Your task to perform on an android device: turn on the 24-hour format for clock Image 0: 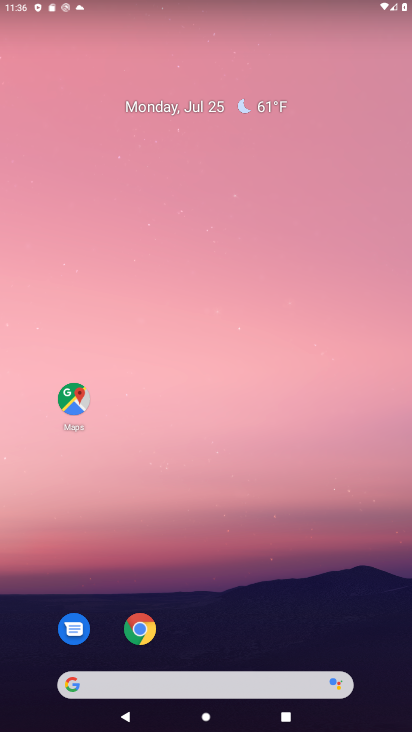
Step 0: drag from (171, 667) to (182, 109)
Your task to perform on an android device: turn on the 24-hour format for clock Image 1: 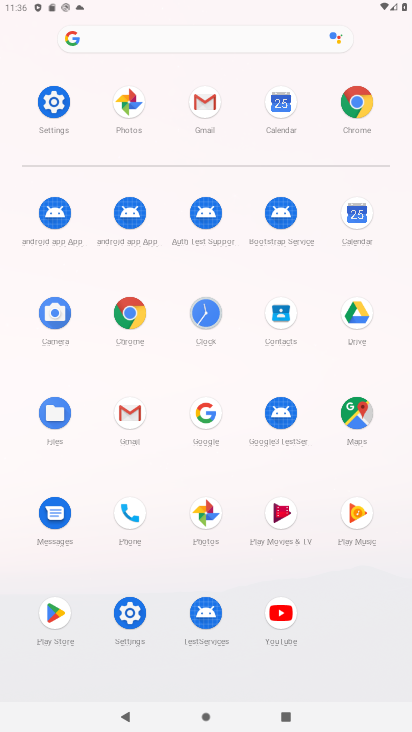
Step 1: click (204, 316)
Your task to perform on an android device: turn on the 24-hour format for clock Image 2: 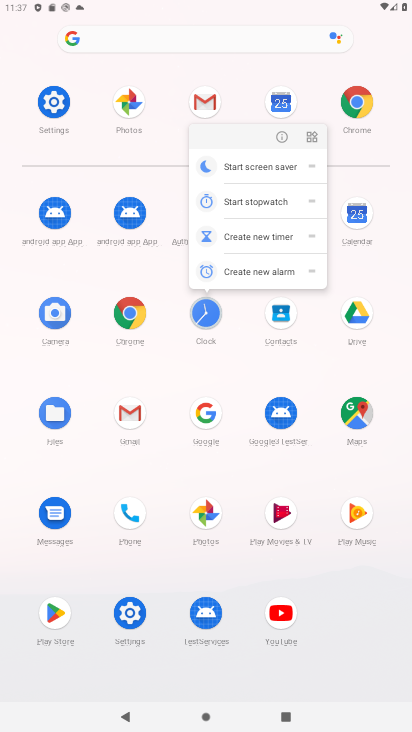
Step 2: click (278, 133)
Your task to perform on an android device: turn on the 24-hour format for clock Image 3: 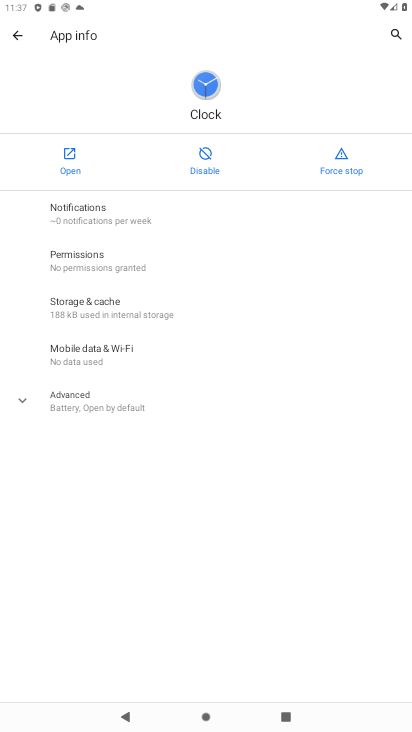
Step 3: click (67, 153)
Your task to perform on an android device: turn on the 24-hour format for clock Image 4: 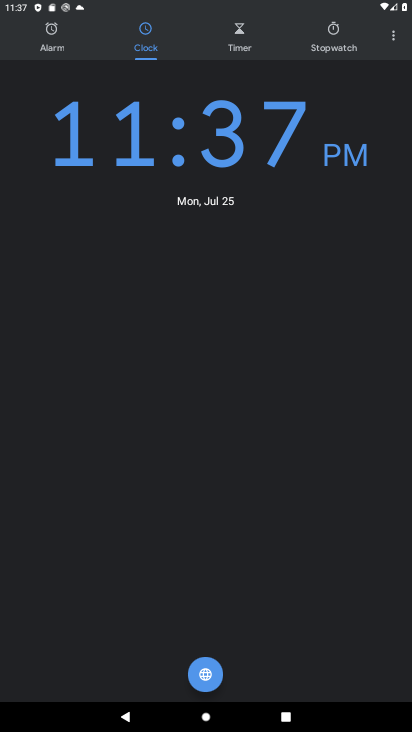
Step 4: drag from (396, 32) to (327, 71)
Your task to perform on an android device: turn on the 24-hour format for clock Image 5: 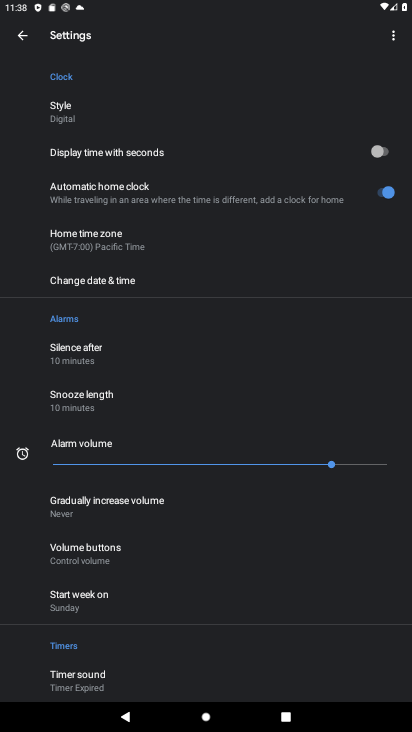
Step 5: drag from (170, 418) to (241, 161)
Your task to perform on an android device: turn on the 24-hour format for clock Image 6: 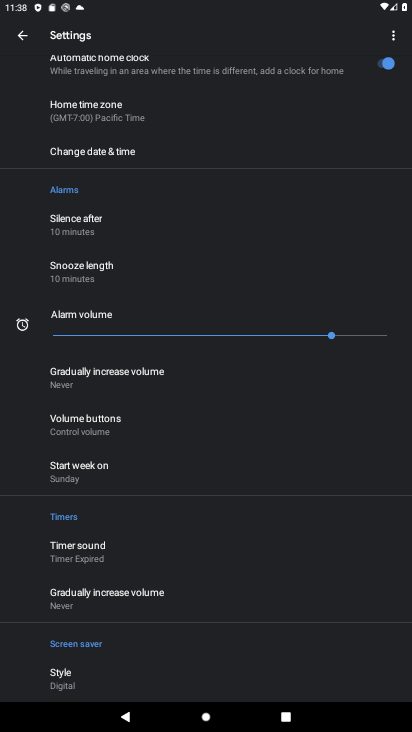
Step 6: drag from (60, 532) to (167, 279)
Your task to perform on an android device: turn on the 24-hour format for clock Image 7: 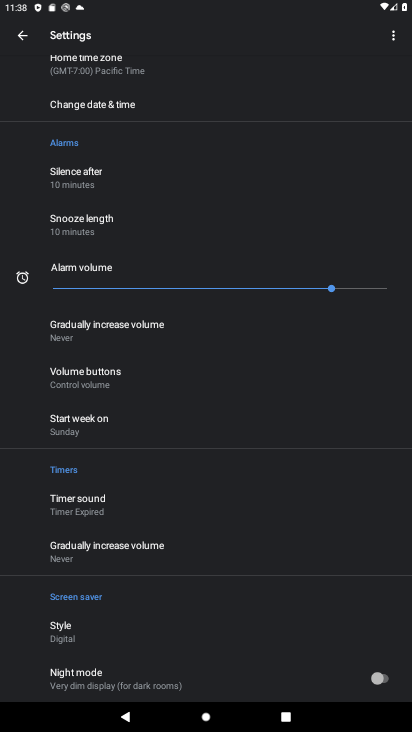
Step 7: drag from (197, 322) to (210, 674)
Your task to perform on an android device: turn on the 24-hour format for clock Image 8: 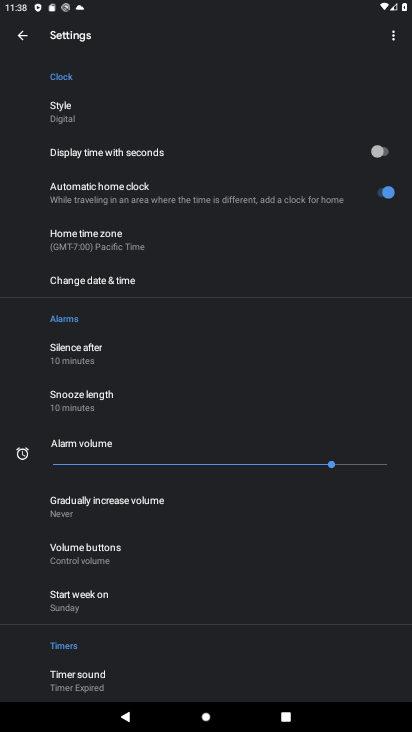
Step 8: click (126, 287)
Your task to perform on an android device: turn on the 24-hour format for clock Image 9: 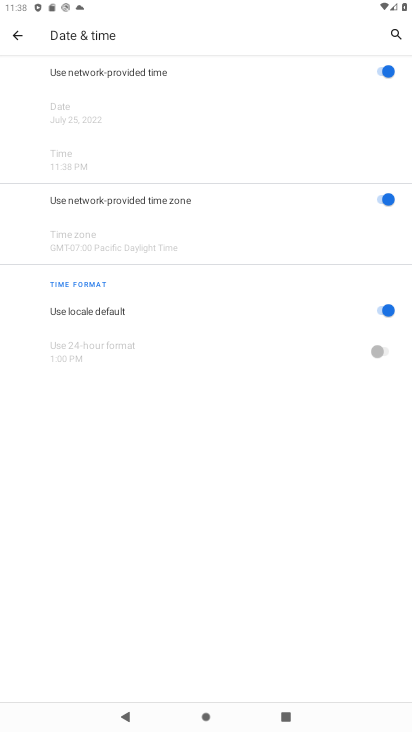
Step 9: click (385, 316)
Your task to perform on an android device: turn on the 24-hour format for clock Image 10: 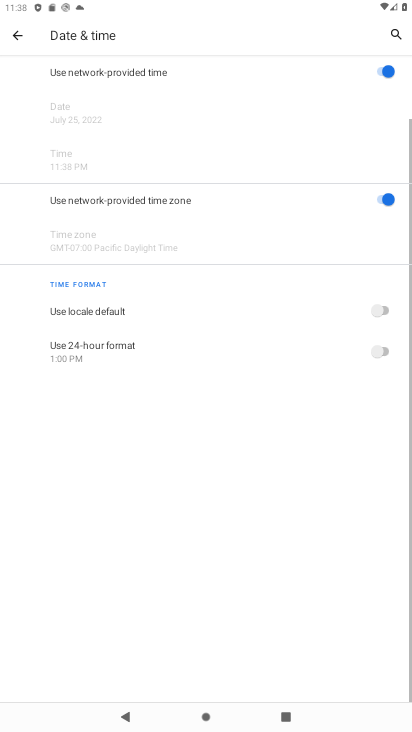
Step 10: click (371, 350)
Your task to perform on an android device: turn on the 24-hour format for clock Image 11: 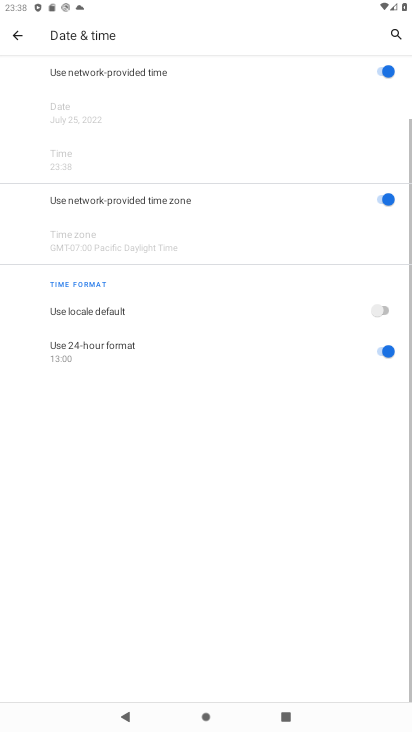
Step 11: task complete